Your task to perform on an android device: allow notifications from all sites in the chrome app Image 0: 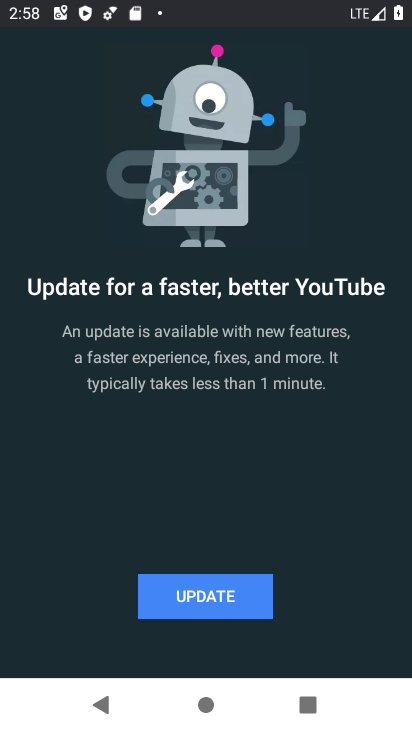
Step 0: press home button
Your task to perform on an android device: allow notifications from all sites in the chrome app Image 1: 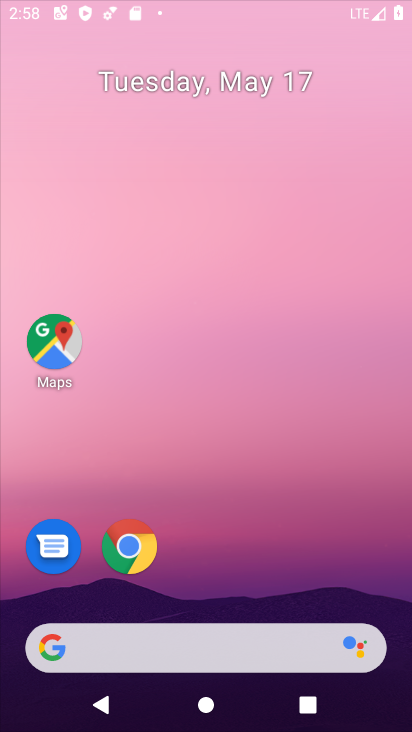
Step 1: drag from (238, 636) to (223, 10)
Your task to perform on an android device: allow notifications from all sites in the chrome app Image 2: 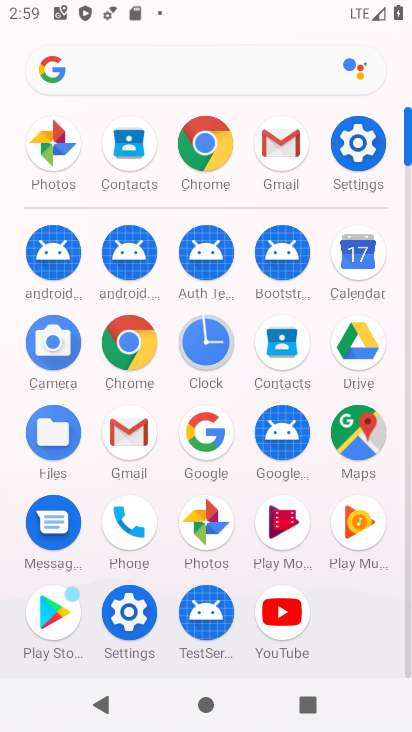
Step 2: click (127, 628)
Your task to perform on an android device: allow notifications from all sites in the chrome app Image 3: 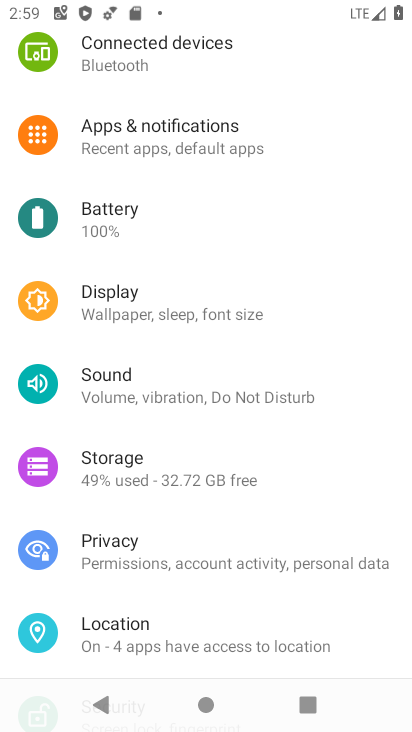
Step 3: press home button
Your task to perform on an android device: allow notifications from all sites in the chrome app Image 4: 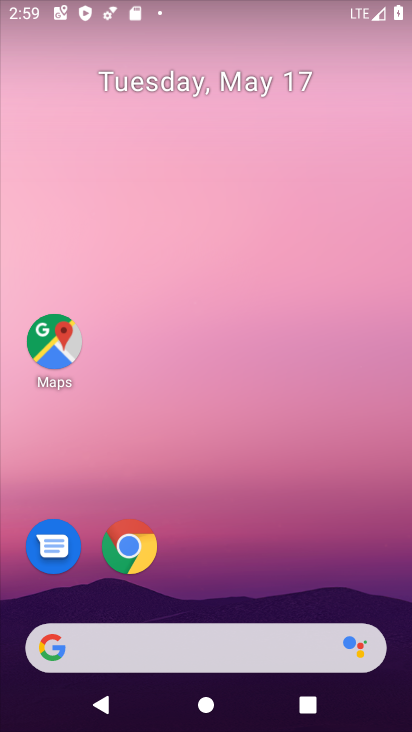
Step 4: click (151, 556)
Your task to perform on an android device: allow notifications from all sites in the chrome app Image 5: 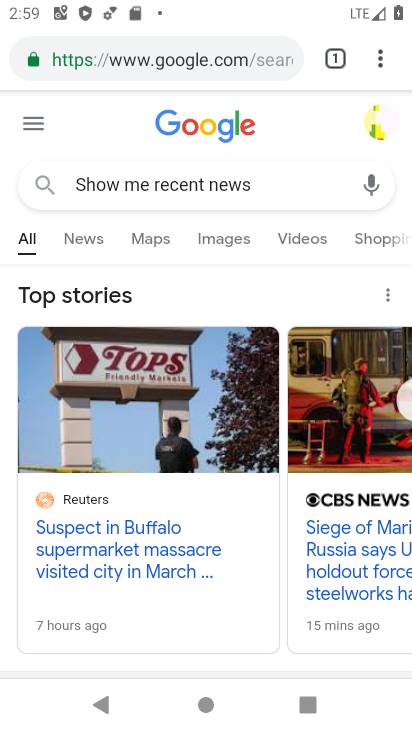
Step 5: drag from (384, 68) to (169, 582)
Your task to perform on an android device: allow notifications from all sites in the chrome app Image 6: 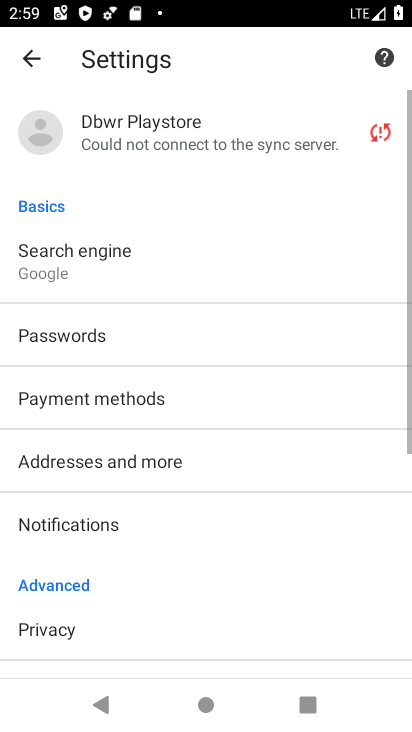
Step 6: drag from (118, 604) to (137, 71)
Your task to perform on an android device: allow notifications from all sites in the chrome app Image 7: 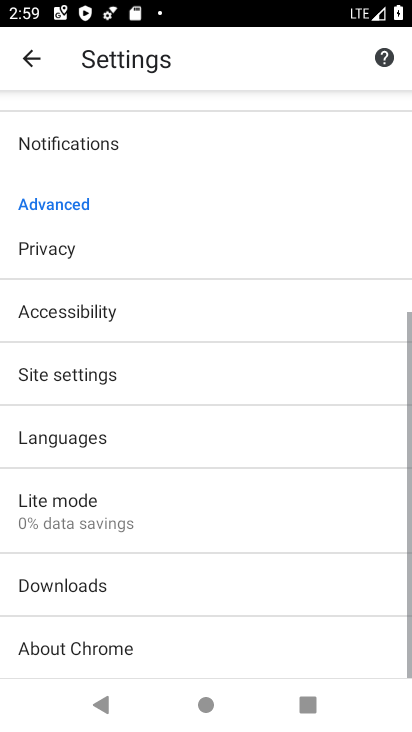
Step 7: click (108, 376)
Your task to perform on an android device: allow notifications from all sites in the chrome app Image 8: 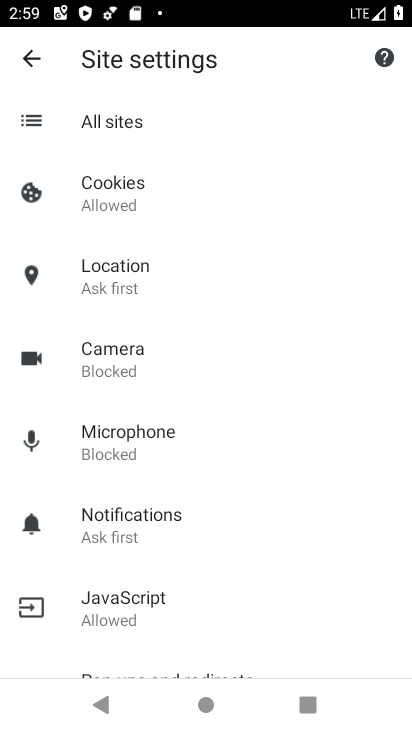
Step 8: drag from (77, 587) to (63, 722)
Your task to perform on an android device: allow notifications from all sites in the chrome app Image 9: 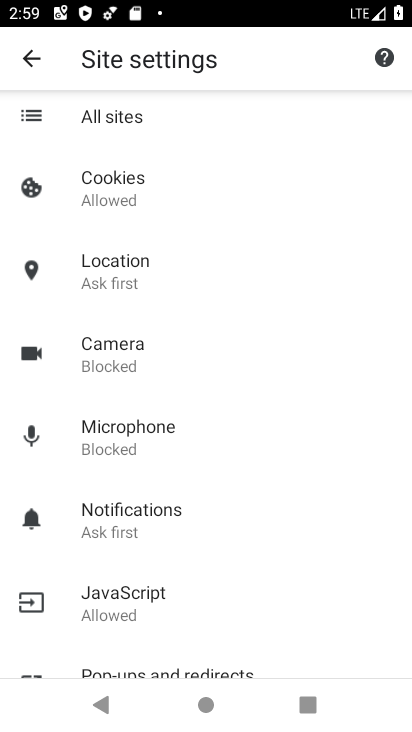
Step 9: click (123, 117)
Your task to perform on an android device: allow notifications from all sites in the chrome app Image 10: 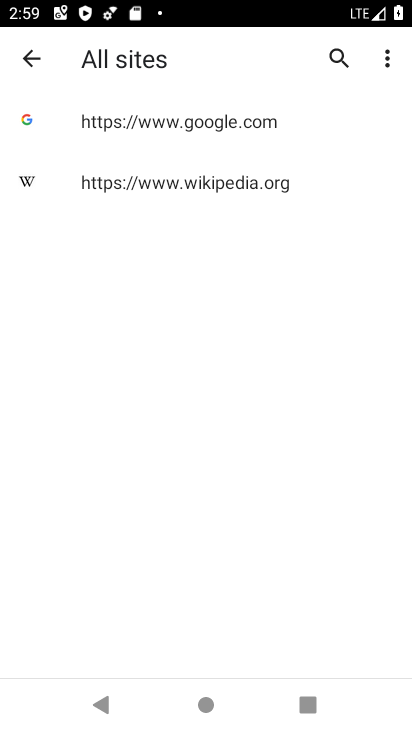
Step 10: click (123, 117)
Your task to perform on an android device: allow notifications from all sites in the chrome app Image 11: 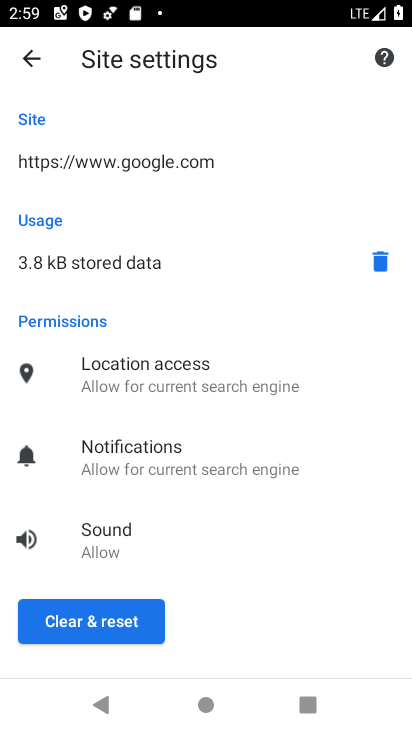
Step 11: click (95, 444)
Your task to perform on an android device: allow notifications from all sites in the chrome app Image 12: 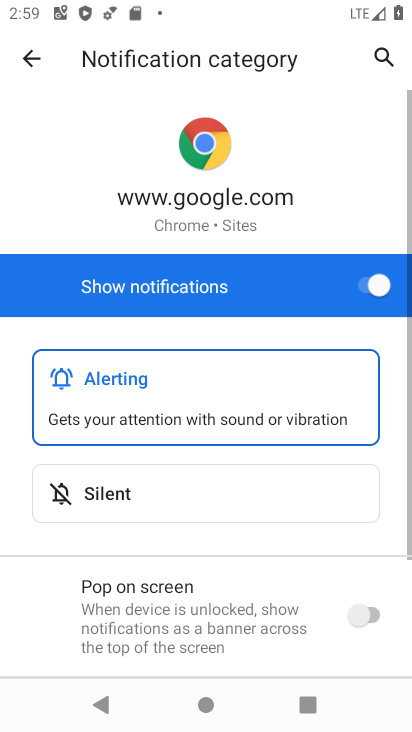
Step 12: drag from (137, 529) to (117, 97)
Your task to perform on an android device: allow notifications from all sites in the chrome app Image 13: 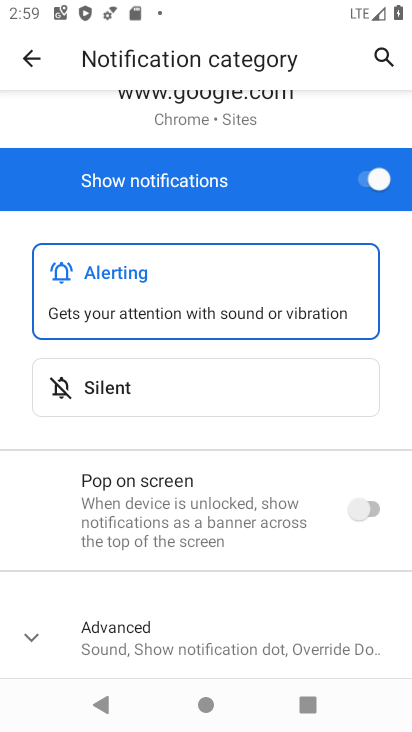
Step 13: click (196, 509)
Your task to perform on an android device: allow notifications from all sites in the chrome app Image 14: 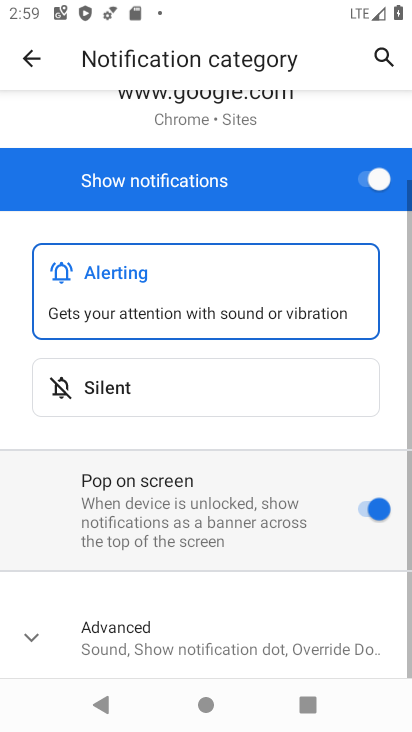
Step 14: click (81, 620)
Your task to perform on an android device: allow notifications from all sites in the chrome app Image 15: 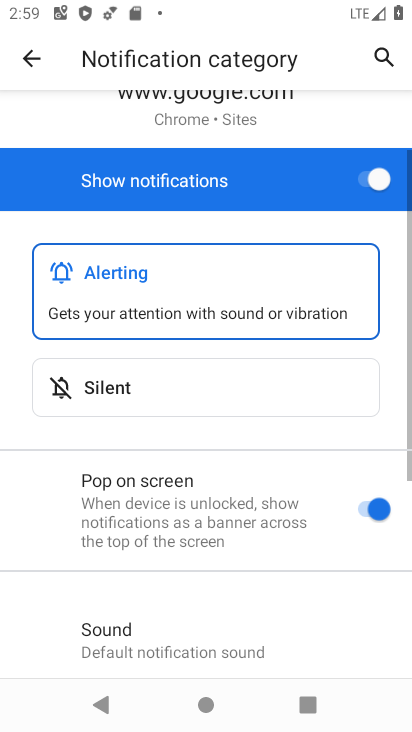
Step 15: drag from (81, 620) to (109, 229)
Your task to perform on an android device: allow notifications from all sites in the chrome app Image 16: 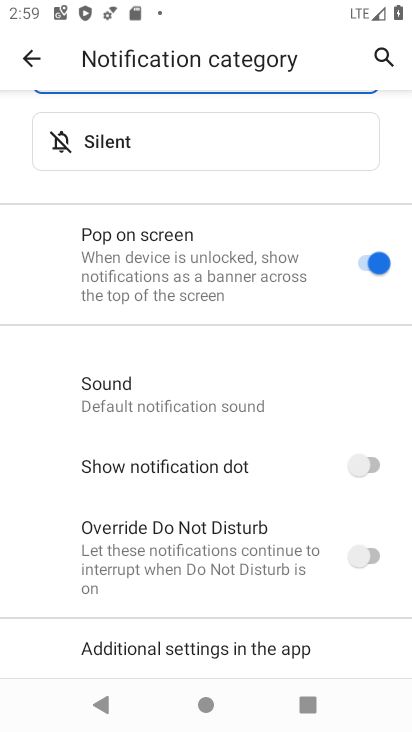
Step 16: click (198, 481)
Your task to perform on an android device: allow notifications from all sites in the chrome app Image 17: 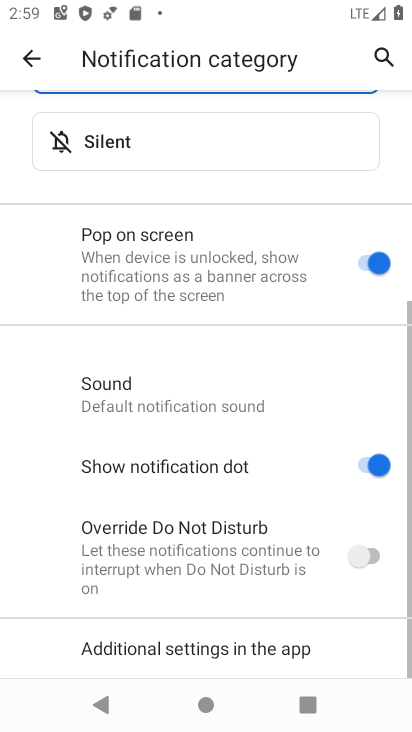
Step 17: click (195, 568)
Your task to perform on an android device: allow notifications from all sites in the chrome app Image 18: 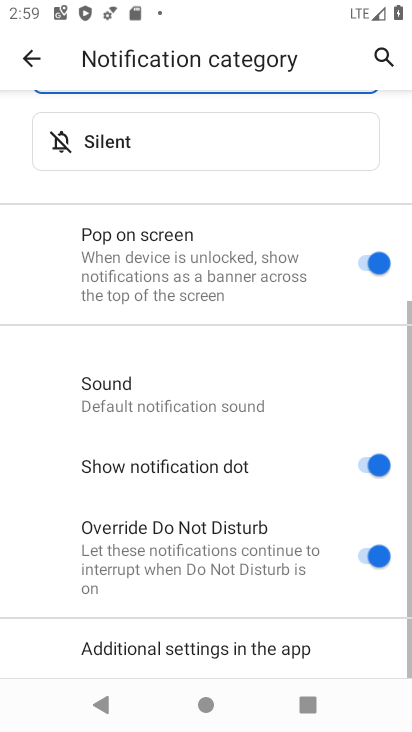
Step 18: task complete